Your task to perform on an android device: turn pop-ups on in chrome Image 0: 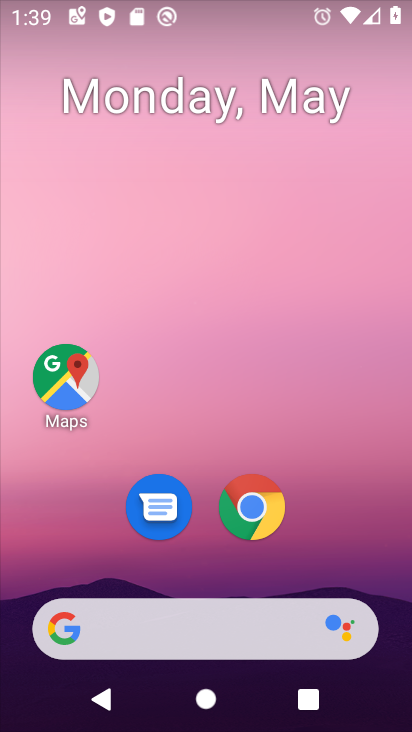
Step 0: click (260, 506)
Your task to perform on an android device: turn pop-ups on in chrome Image 1: 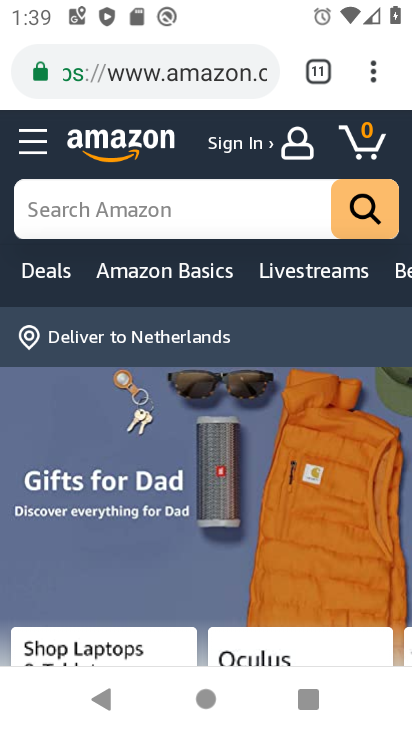
Step 1: click (374, 75)
Your task to perform on an android device: turn pop-ups on in chrome Image 2: 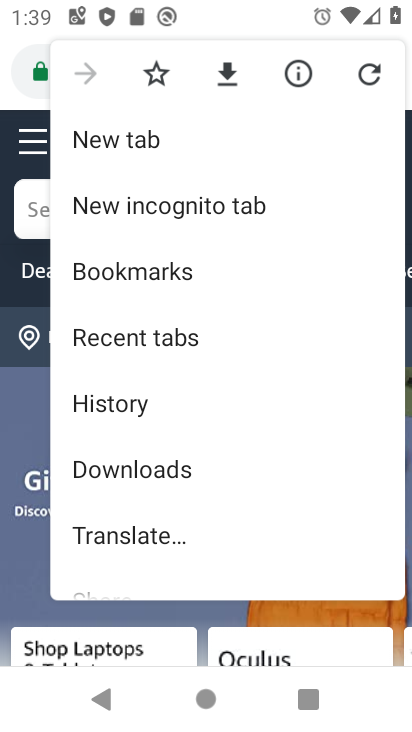
Step 2: drag from (158, 568) to (141, 107)
Your task to perform on an android device: turn pop-ups on in chrome Image 3: 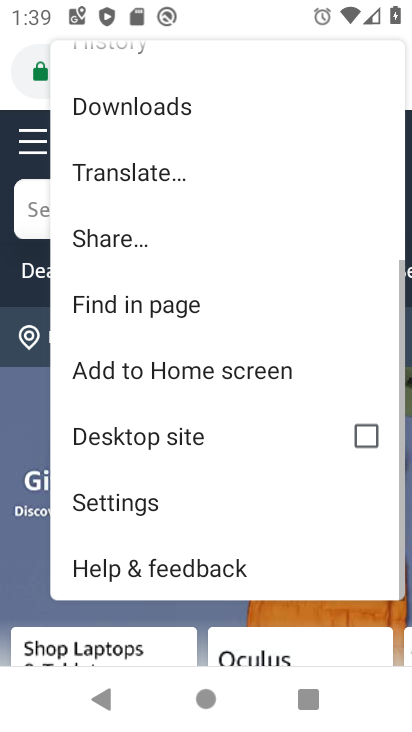
Step 3: click (130, 500)
Your task to perform on an android device: turn pop-ups on in chrome Image 4: 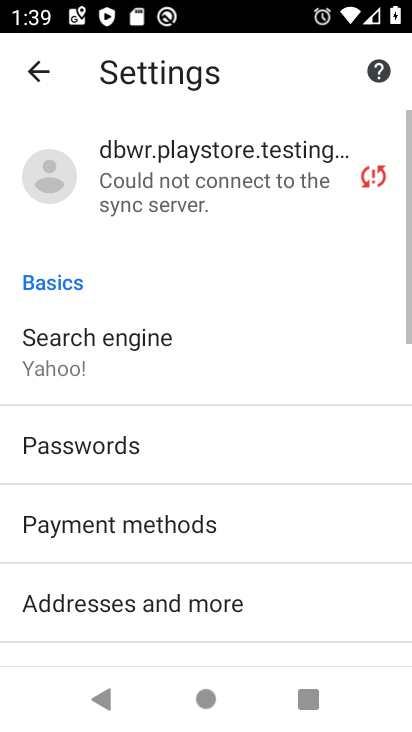
Step 4: drag from (146, 648) to (146, 217)
Your task to perform on an android device: turn pop-ups on in chrome Image 5: 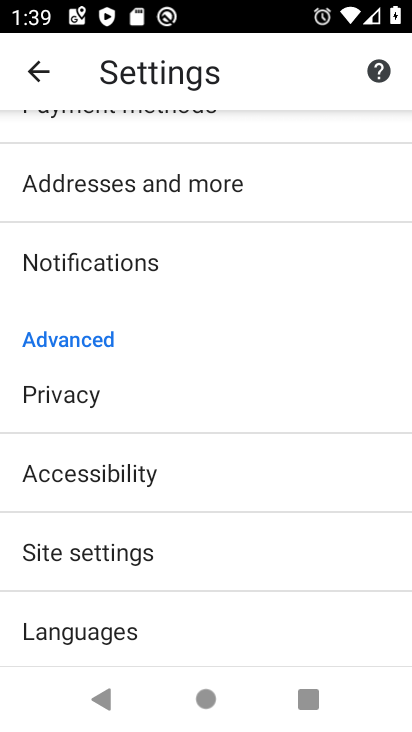
Step 5: click (94, 548)
Your task to perform on an android device: turn pop-ups on in chrome Image 6: 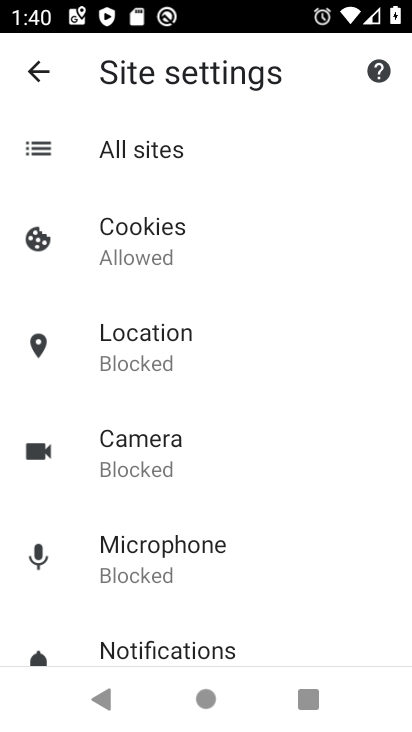
Step 6: drag from (146, 612) to (146, 170)
Your task to perform on an android device: turn pop-ups on in chrome Image 7: 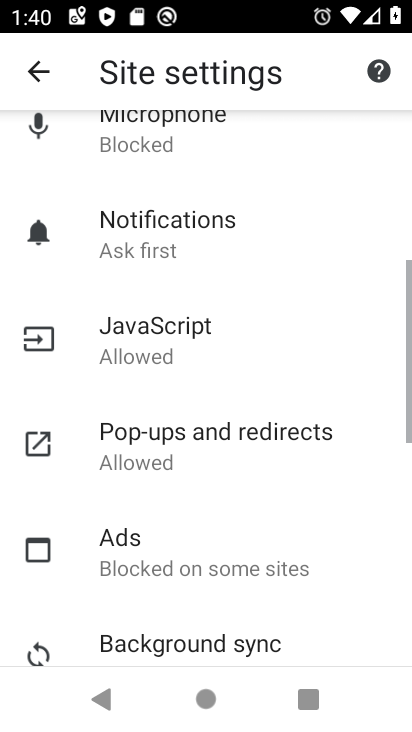
Step 7: click (141, 443)
Your task to perform on an android device: turn pop-ups on in chrome Image 8: 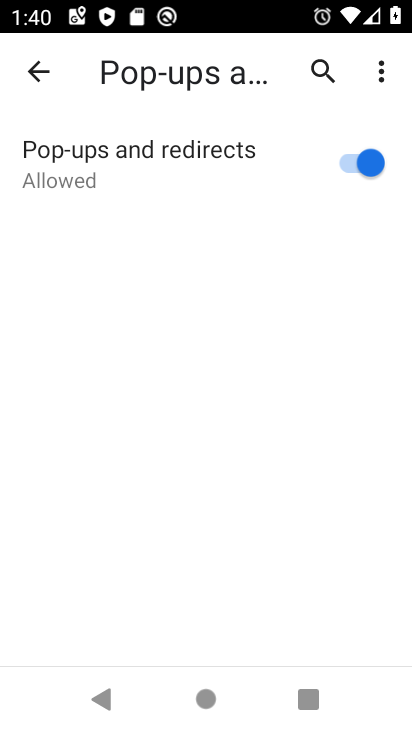
Step 8: task complete